Your task to perform on an android device: Search for the best rated headphones on Amazon. Image 0: 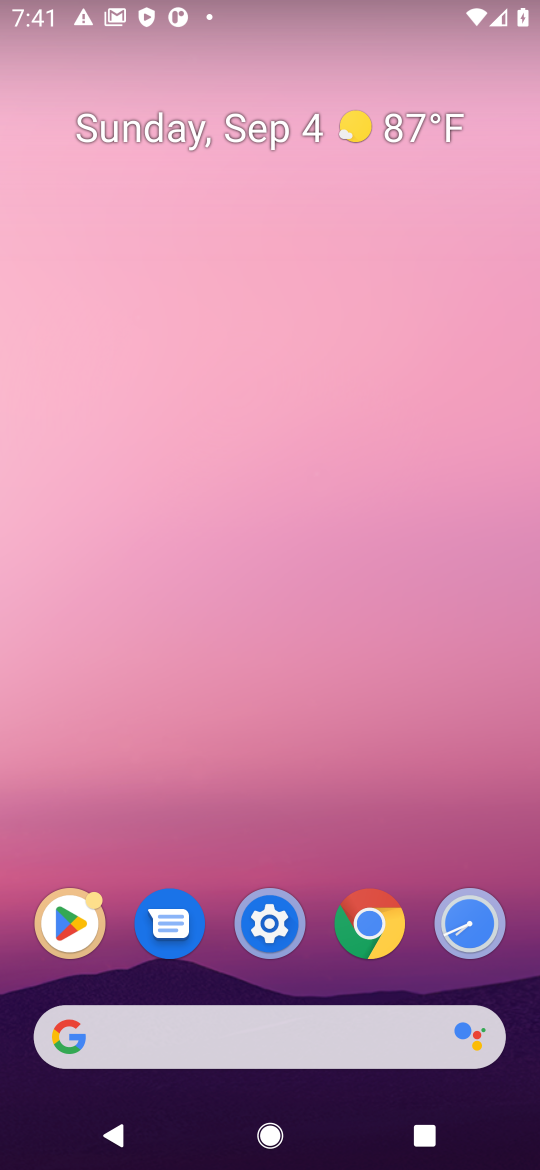
Step 0: click (381, 1027)
Your task to perform on an android device: Search for the best rated headphones on Amazon. Image 1: 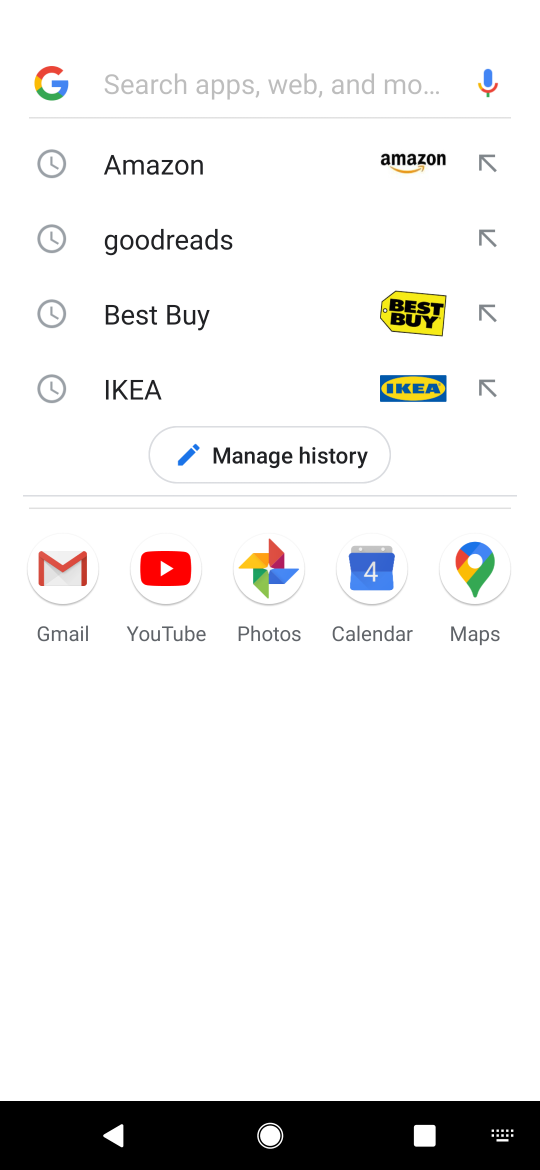
Step 1: click (206, 166)
Your task to perform on an android device: Search for the best rated headphones on Amazon. Image 2: 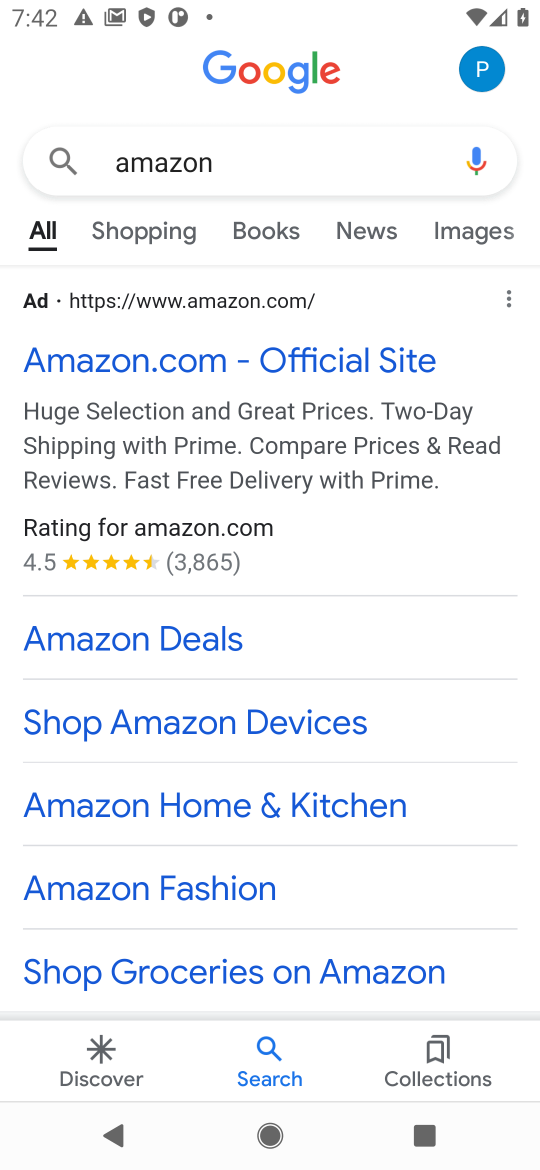
Step 2: click (268, 365)
Your task to perform on an android device: Search for the best rated headphones on Amazon. Image 3: 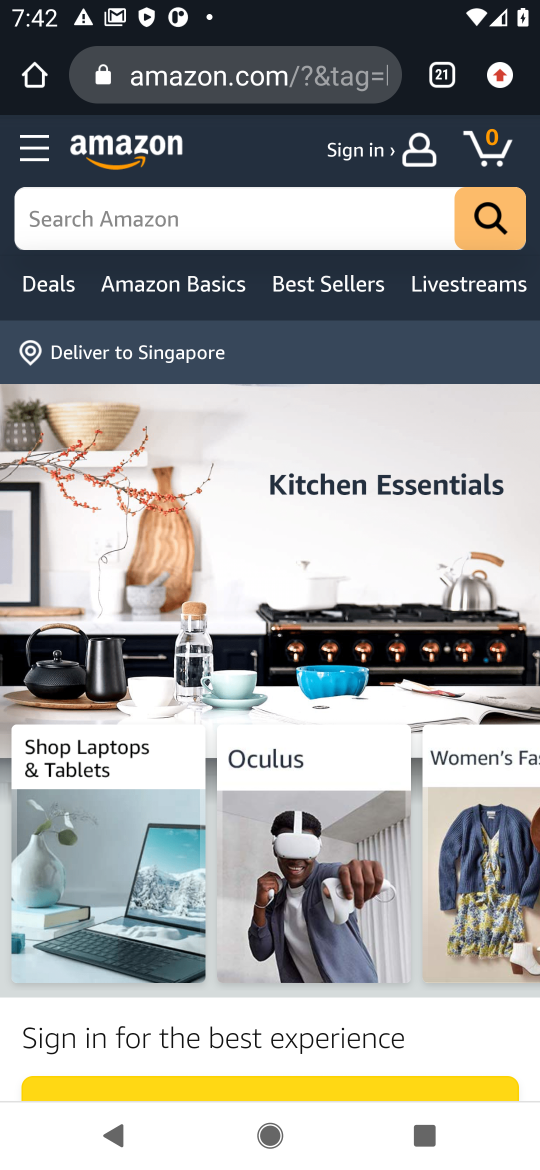
Step 3: click (216, 202)
Your task to perform on an android device: Search for the best rated headphones on Amazon. Image 4: 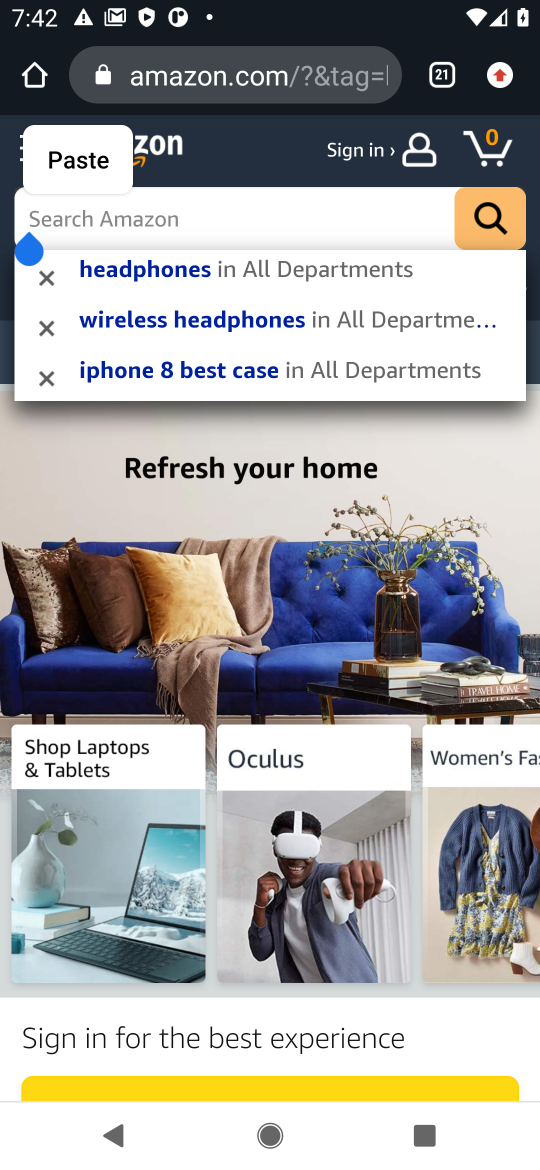
Step 4: click (218, 266)
Your task to perform on an android device: Search for the best rated headphones on Amazon. Image 5: 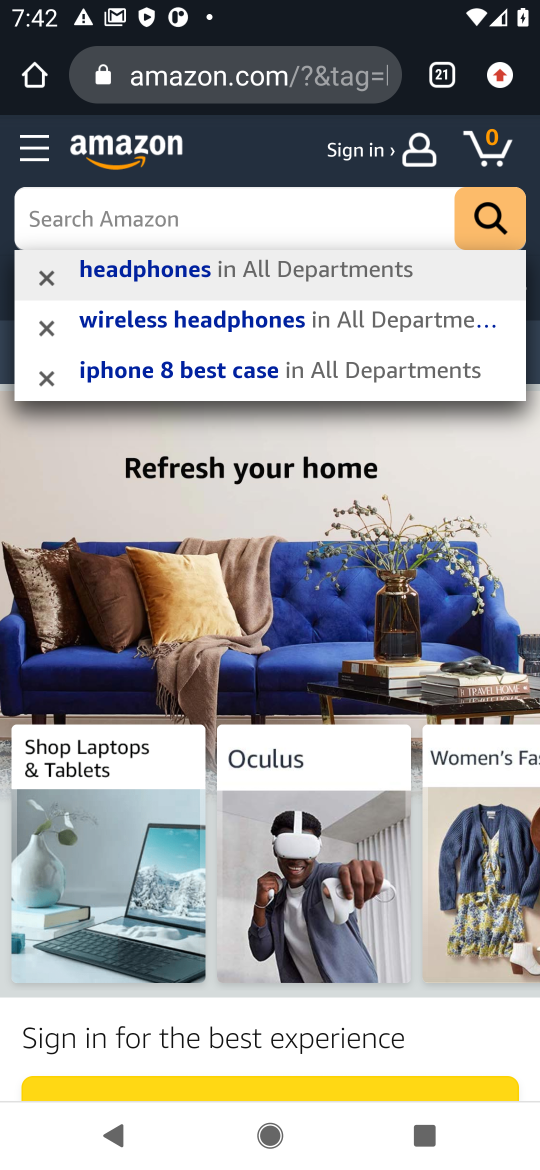
Step 5: click (166, 264)
Your task to perform on an android device: Search for the best rated headphones on Amazon. Image 6: 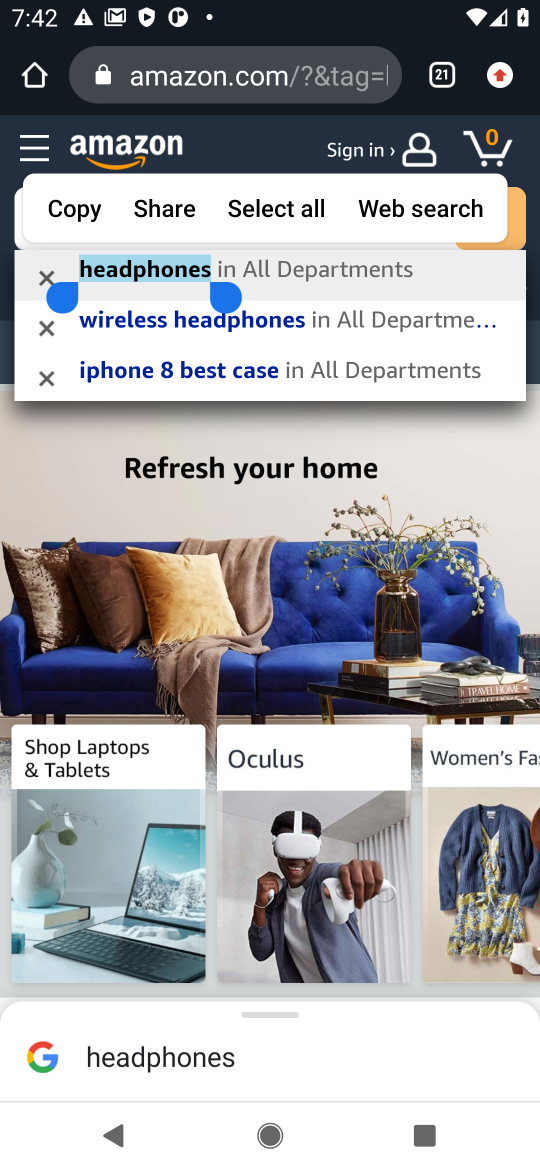
Step 6: click (291, 260)
Your task to perform on an android device: Search for the best rated headphones on Amazon. Image 7: 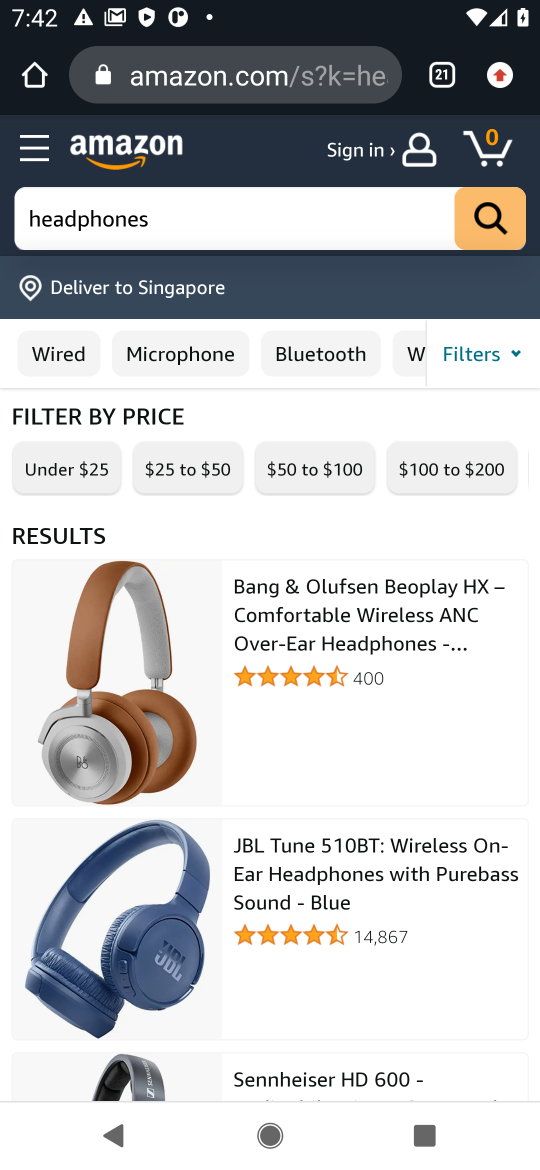
Step 7: task complete